Your task to perform on an android device: Open Maps and search for coffee Image 0: 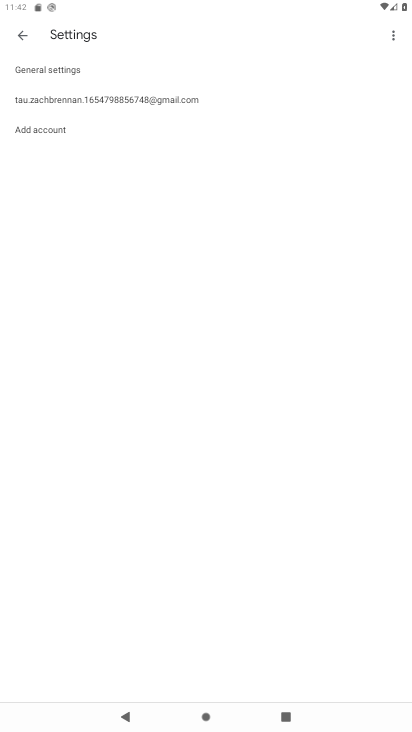
Step 0: press home button
Your task to perform on an android device: Open Maps and search for coffee Image 1: 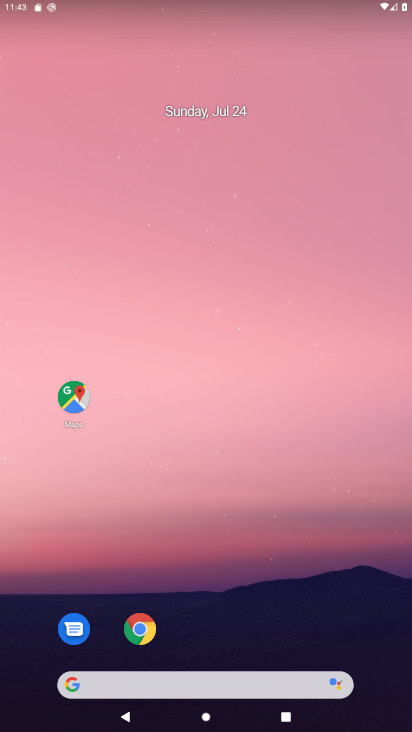
Step 1: click (80, 396)
Your task to perform on an android device: Open Maps and search for coffee Image 2: 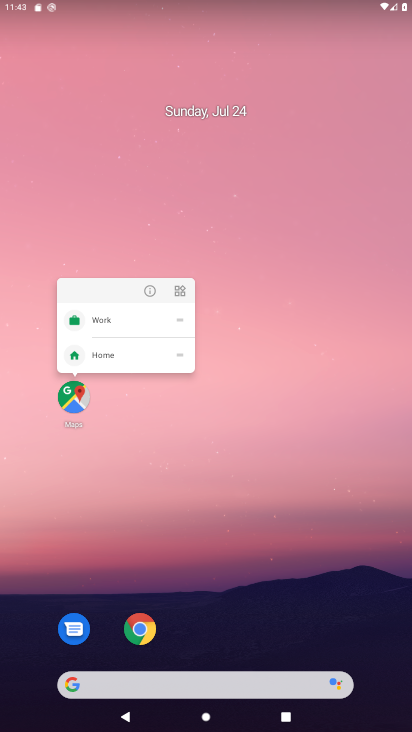
Step 2: click (78, 406)
Your task to perform on an android device: Open Maps and search for coffee Image 3: 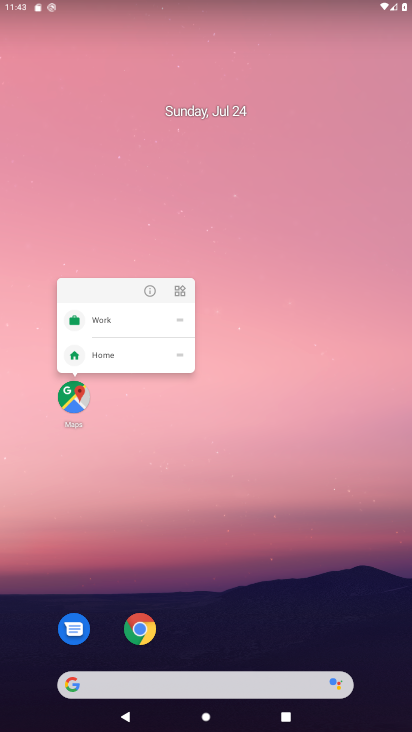
Step 3: click (84, 410)
Your task to perform on an android device: Open Maps and search for coffee Image 4: 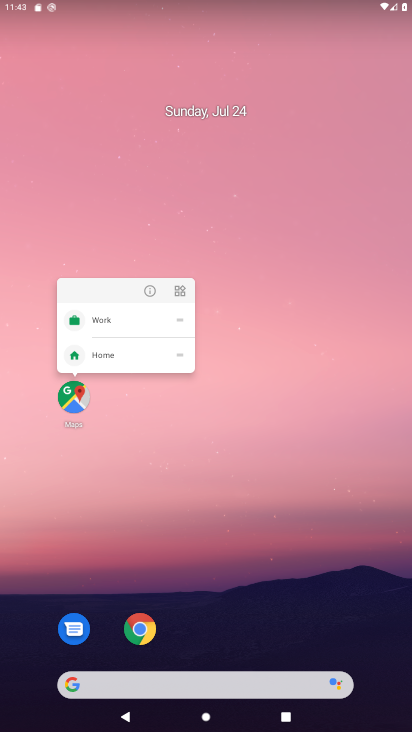
Step 4: click (76, 400)
Your task to perform on an android device: Open Maps and search for coffee Image 5: 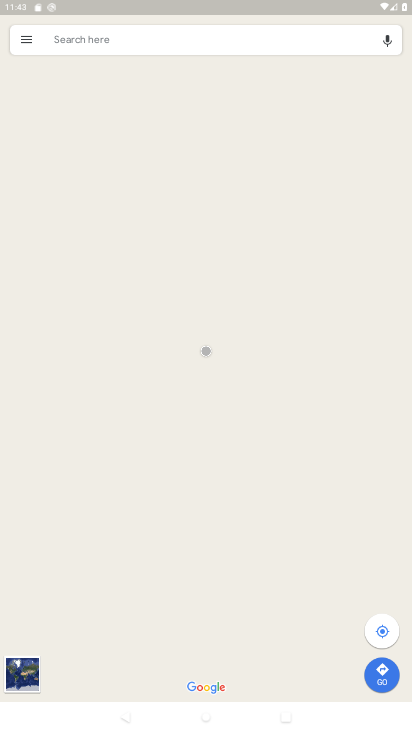
Step 5: click (173, 46)
Your task to perform on an android device: Open Maps and search for coffee Image 6: 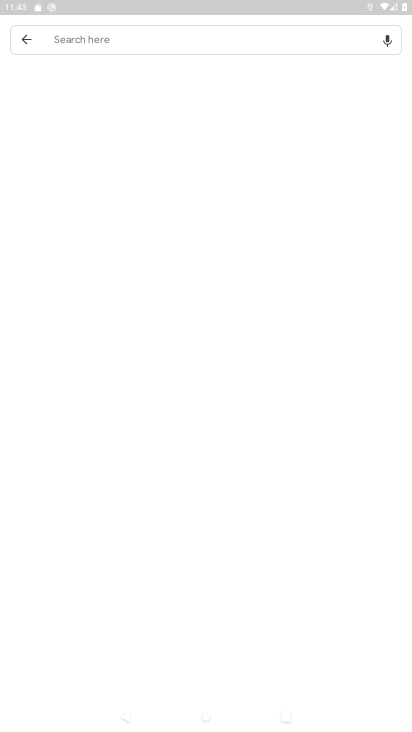
Step 6: click (181, 46)
Your task to perform on an android device: Open Maps and search for coffee Image 7: 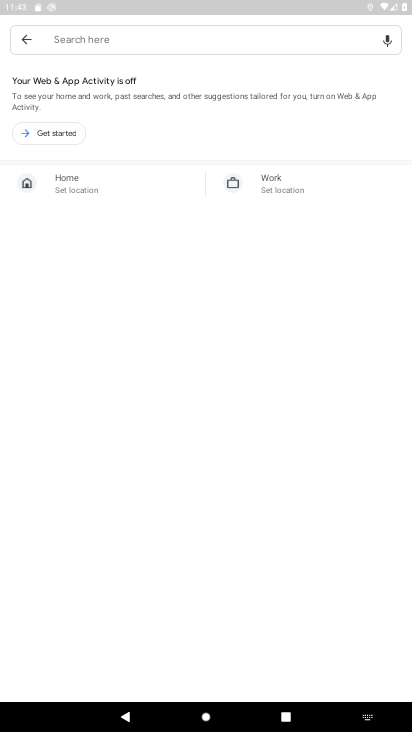
Step 7: type "coffee"
Your task to perform on an android device: Open Maps and search for coffee Image 8: 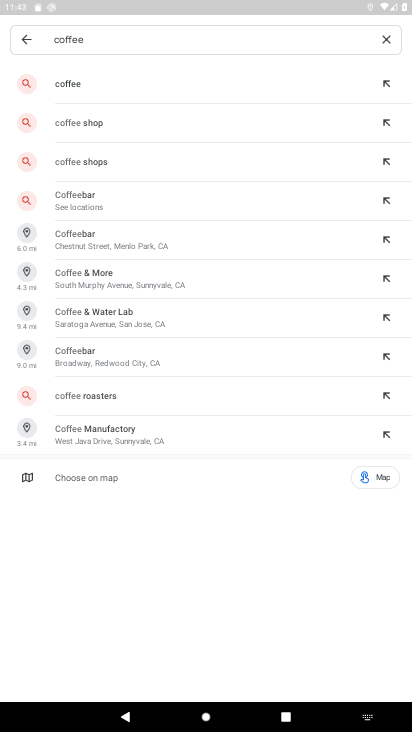
Step 8: click (107, 85)
Your task to perform on an android device: Open Maps and search for coffee Image 9: 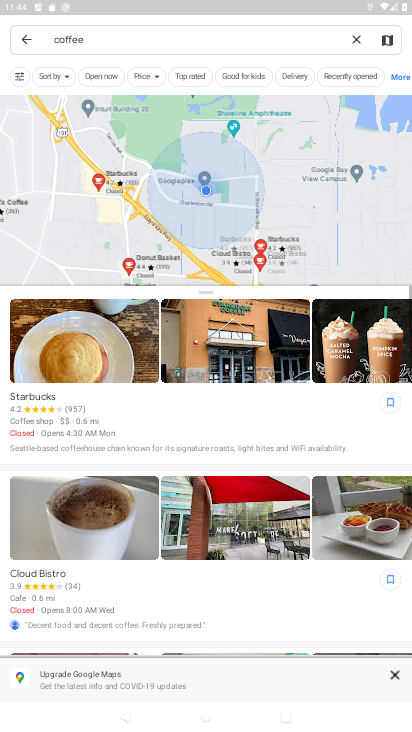
Step 9: task complete